Your task to perform on an android device: open app "Google Find My Device" Image 0: 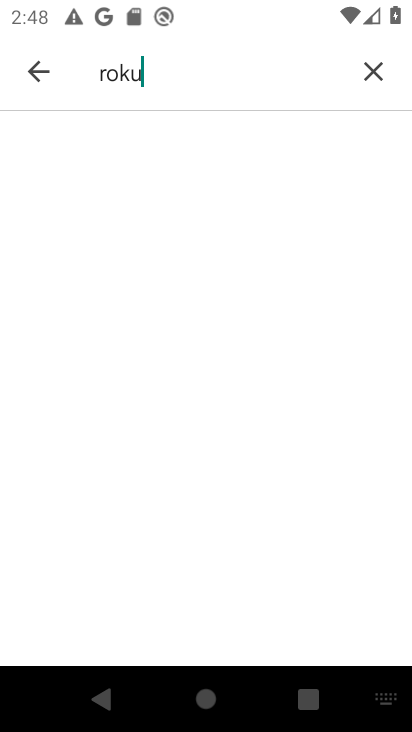
Step 0: press home button
Your task to perform on an android device: open app "Google Find My Device" Image 1: 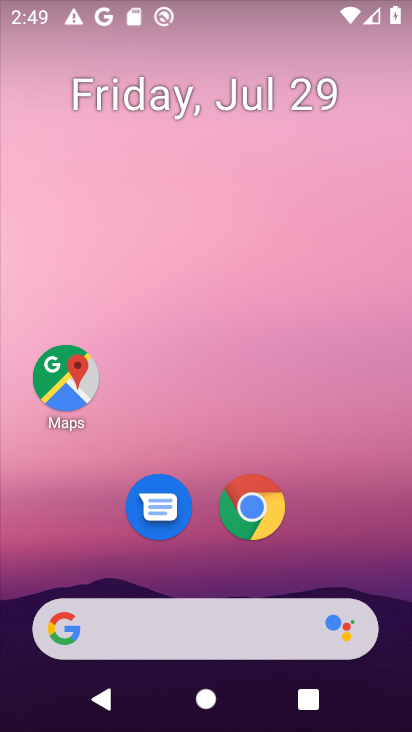
Step 1: click (211, 611)
Your task to perform on an android device: open app "Google Find My Device" Image 2: 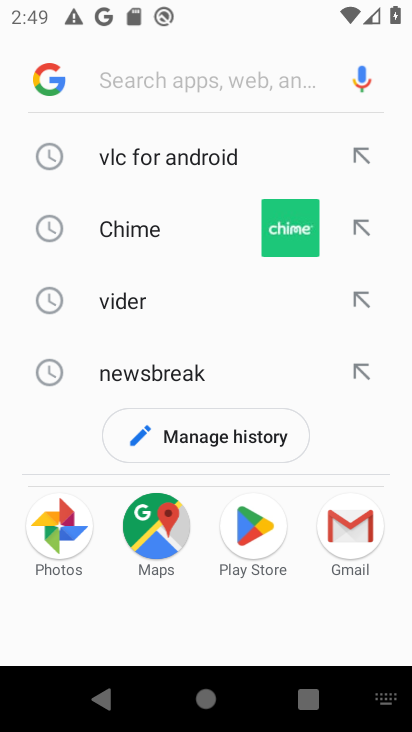
Step 2: type "google find my devices"
Your task to perform on an android device: open app "Google Find My Device" Image 3: 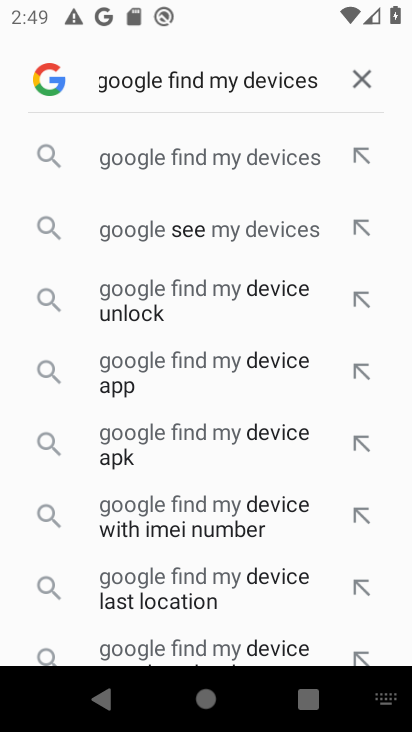
Step 3: click (252, 137)
Your task to perform on an android device: open app "Google Find My Device" Image 4: 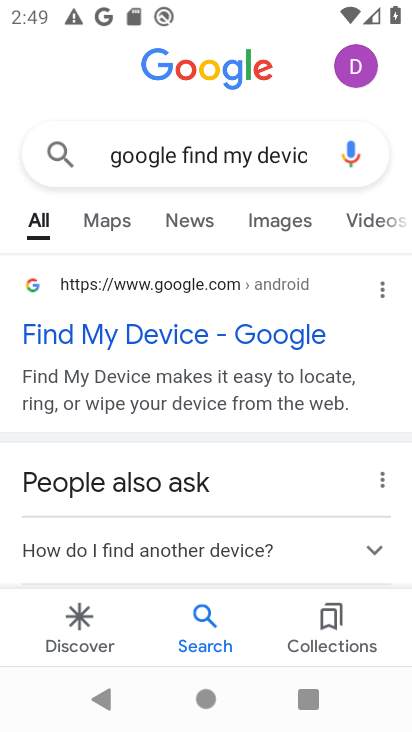
Step 4: click (172, 349)
Your task to perform on an android device: open app "Google Find My Device" Image 5: 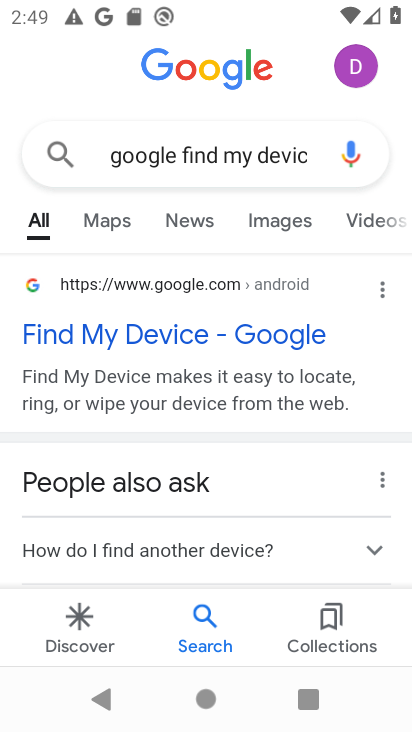
Step 5: task complete